Your task to perform on an android device: Go to Wikipedia Image 0: 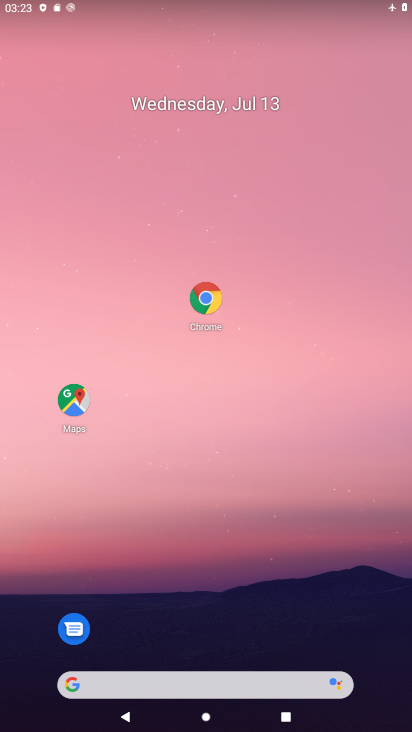
Step 0: click (191, 296)
Your task to perform on an android device: Go to Wikipedia Image 1: 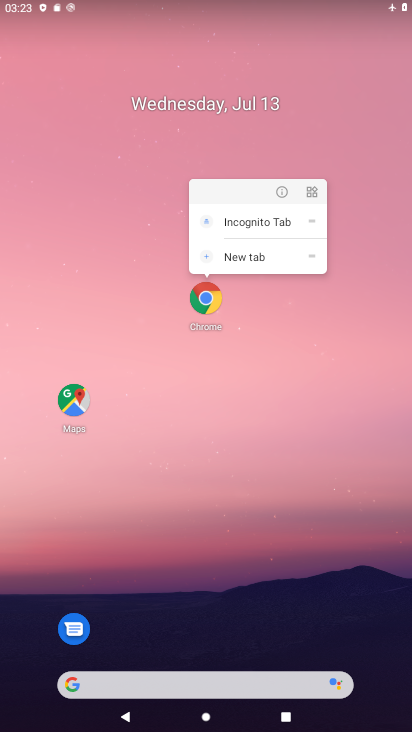
Step 1: click (200, 298)
Your task to perform on an android device: Go to Wikipedia Image 2: 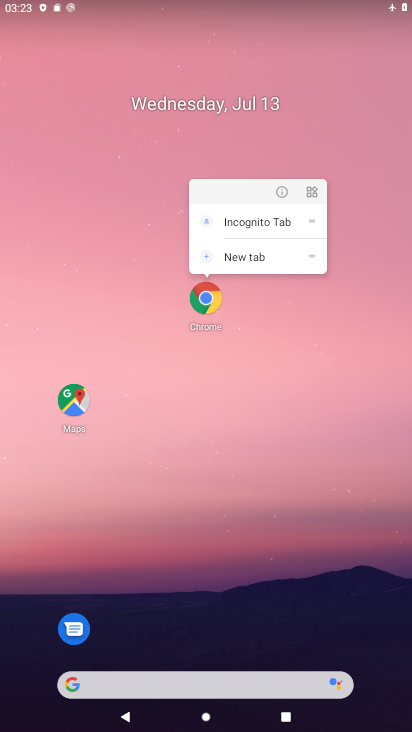
Step 2: click (200, 298)
Your task to perform on an android device: Go to Wikipedia Image 3: 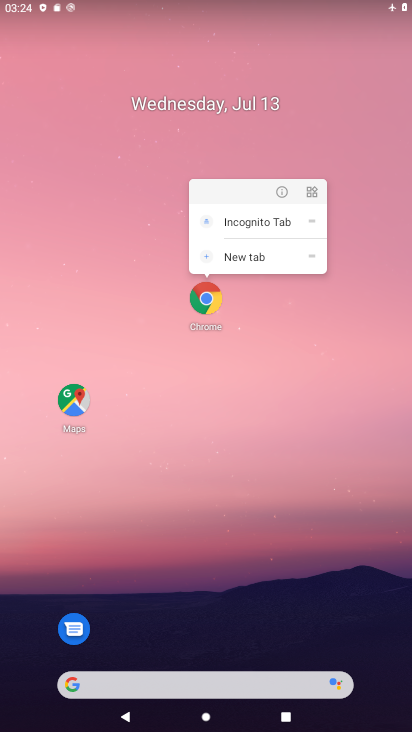
Step 3: click (205, 302)
Your task to perform on an android device: Go to Wikipedia Image 4: 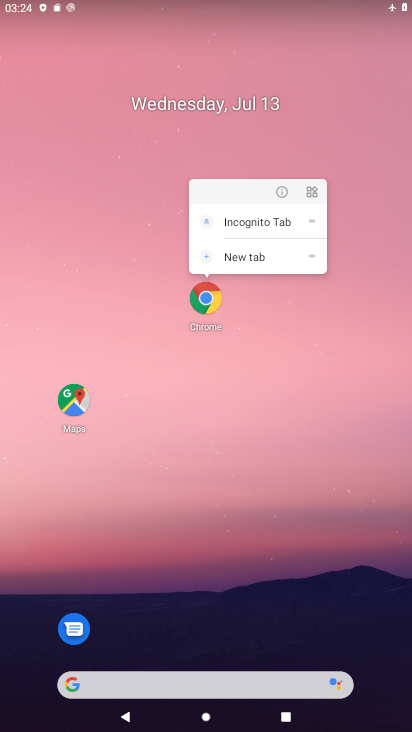
Step 4: drag from (209, 307) to (277, 407)
Your task to perform on an android device: Go to Wikipedia Image 5: 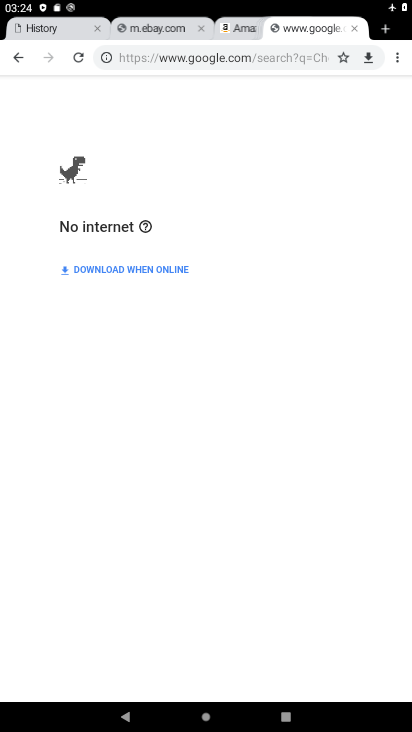
Step 5: click (386, 27)
Your task to perform on an android device: Go to Wikipedia Image 6: 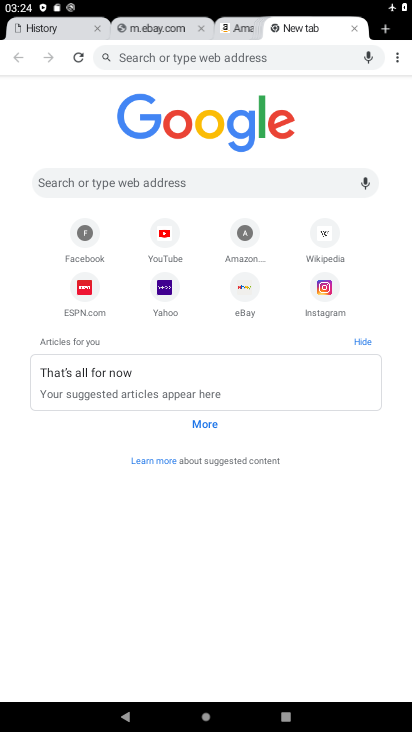
Step 6: click (325, 235)
Your task to perform on an android device: Go to Wikipedia Image 7: 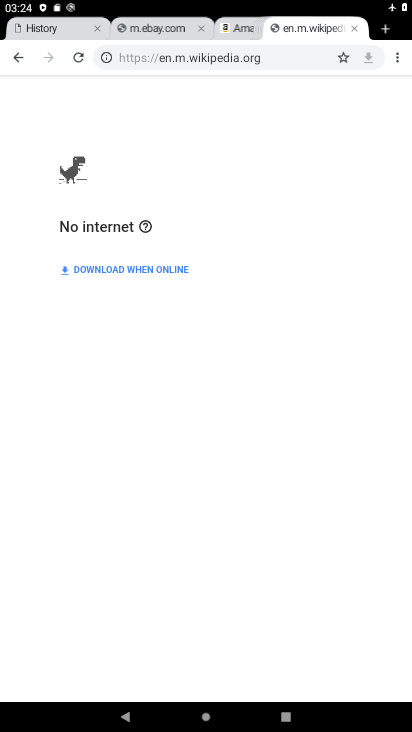
Step 7: task complete